Your task to perform on an android device: open chrome and create a bookmark for the current page Image 0: 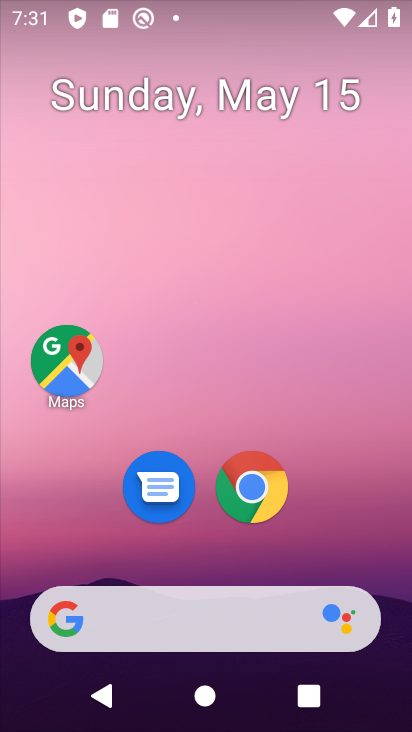
Step 0: drag from (371, 489) to (304, 143)
Your task to perform on an android device: open chrome and create a bookmark for the current page Image 1: 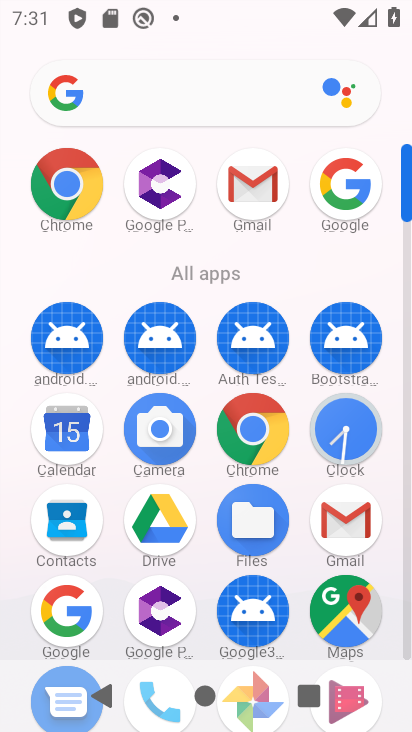
Step 1: click (265, 438)
Your task to perform on an android device: open chrome and create a bookmark for the current page Image 2: 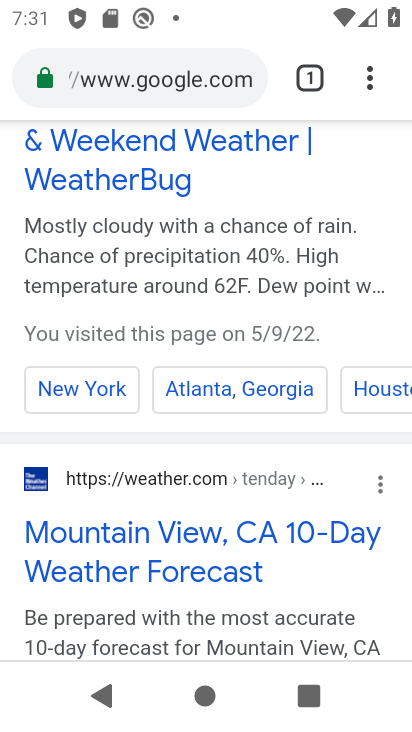
Step 2: task complete